Your task to perform on an android device: Go to Maps Image 0: 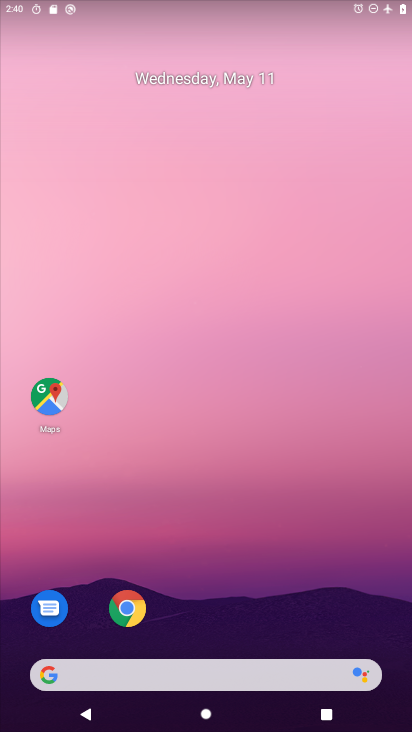
Step 0: drag from (215, 568) to (279, 47)
Your task to perform on an android device: Go to Maps Image 1: 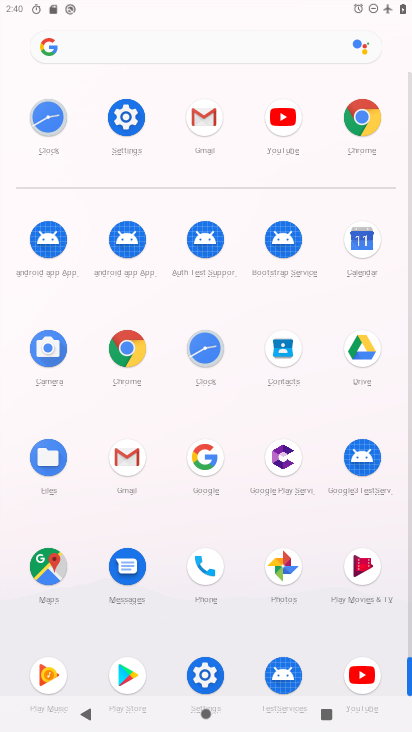
Step 1: click (59, 571)
Your task to perform on an android device: Go to Maps Image 2: 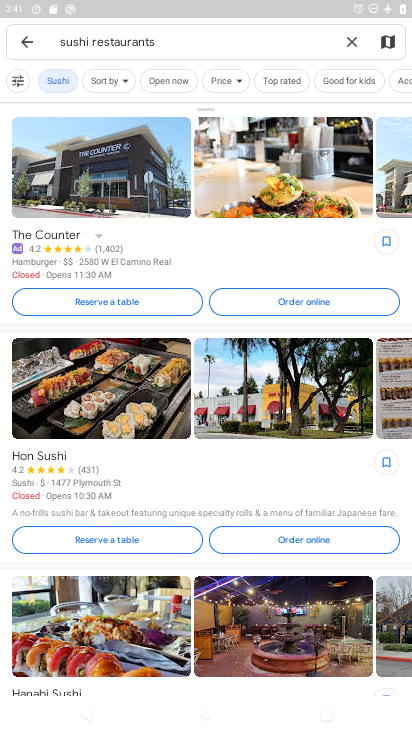
Step 2: task complete